Your task to perform on an android device: What is the news today? Image 0: 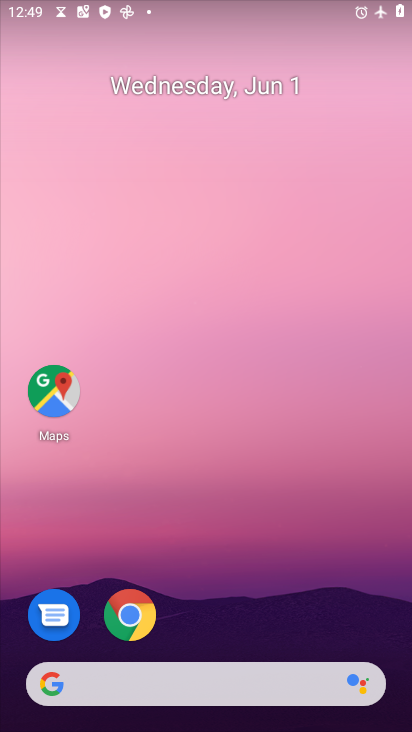
Step 0: drag from (297, 567) to (222, 20)
Your task to perform on an android device: What is the news today? Image 1: 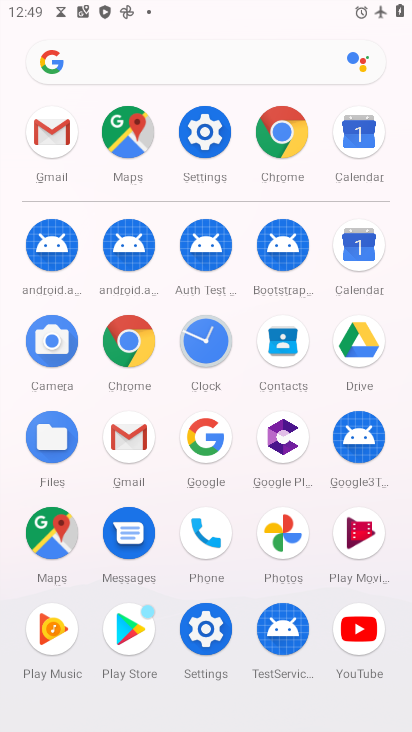
Step 1: click (291, 140)
Your task to perform on an android device: What is the news today? Image 2: 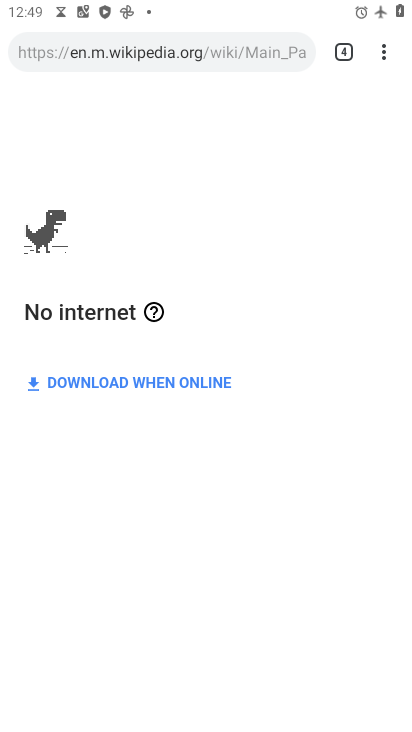
Step 2: task complete